Your task to perform on an android device: Open settings on Google Maps Image 0: 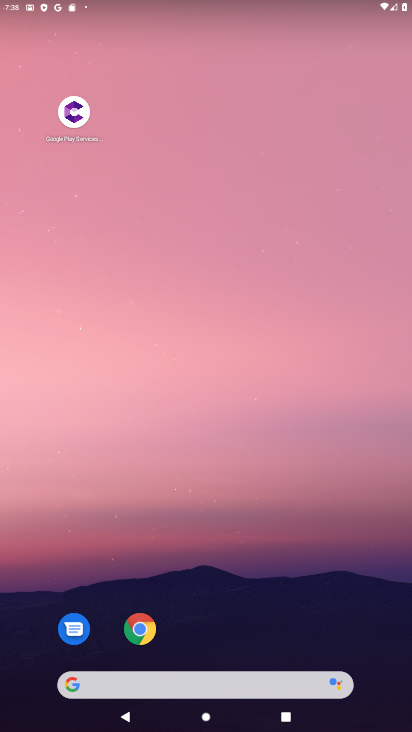
Step 0: drag from (204, 663) to (200, 121)
Your task to perform on an android device: Open settings on Google Maps Image 1: 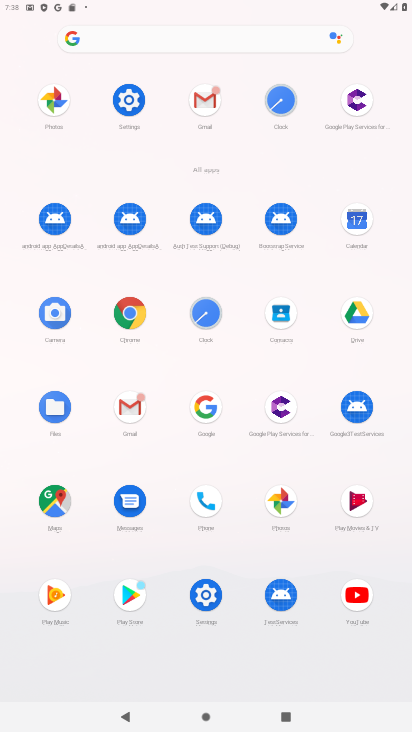
Step 1: click (55, 502)
Your task to perform on an android device: Open settings on Google Maps Image 2: 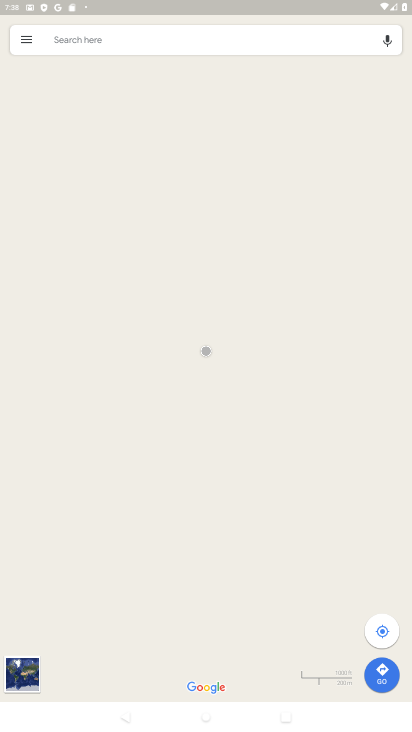
Step 2: click (17, 44)
Your task to perform on an android device: Open settings on Google Maps Image 3: 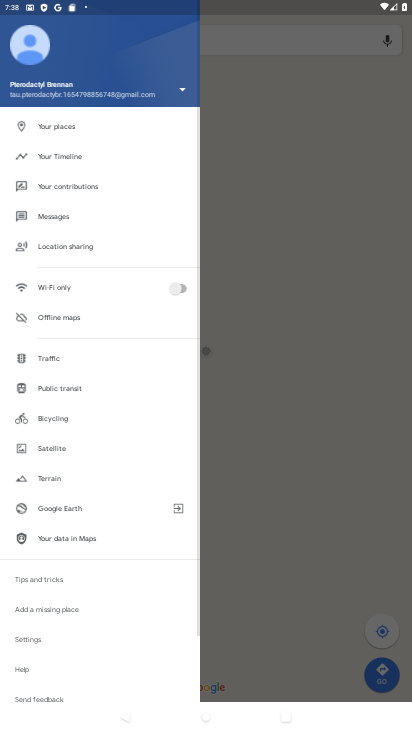
Step 3: click (35, 638)
Your task to perform on an android device: Open settings on Google Maps Image 4: 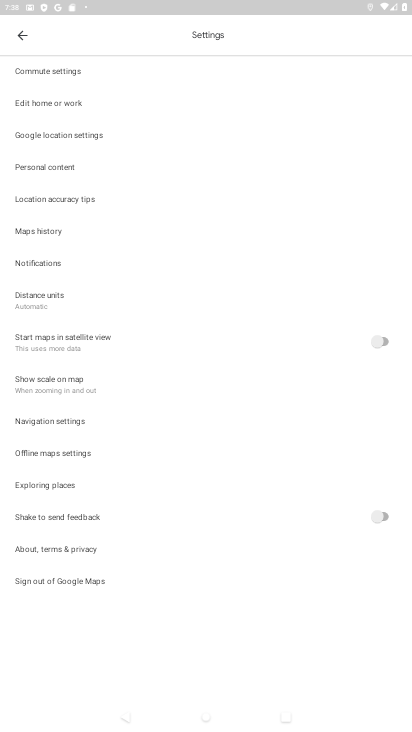
Step 4: task complete